Your task to perform on an android device: change alarm snooze length Image 0: 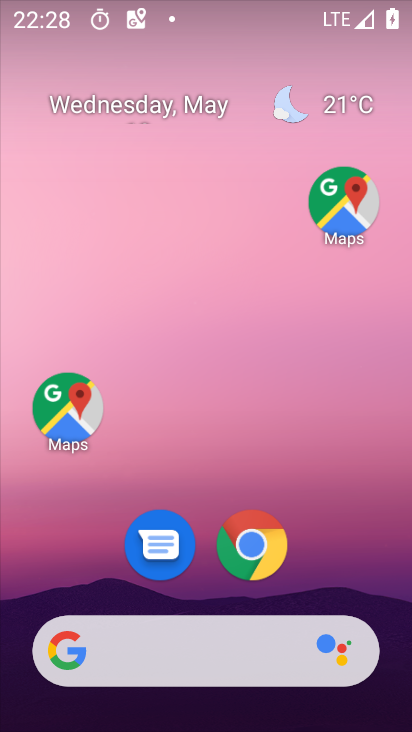
Step 0: drag from (201, 589) to (240, 111)
Your task to perform on an android device: change alarm snooze length Image 1: 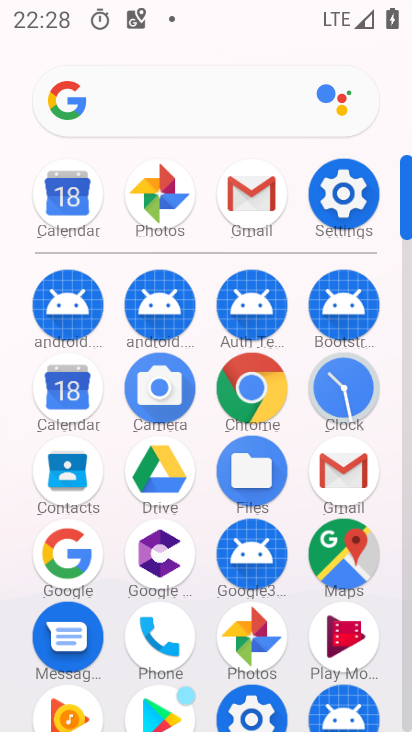
Step 1: click (327, 393)
Your task to perform on an android device: change alarm snooze length Image 2: 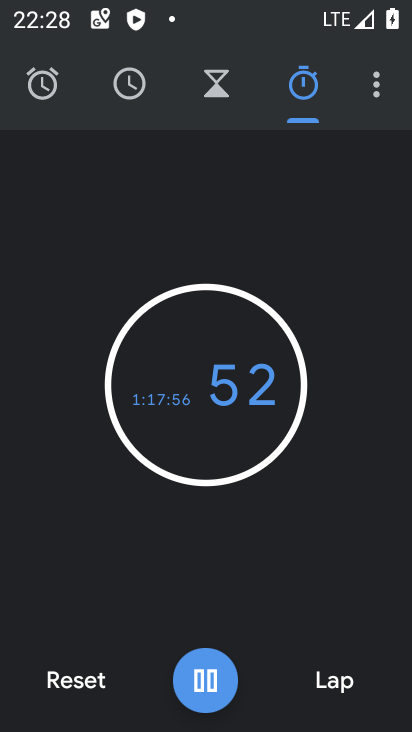
Step 2: click (377, 79)
Your task to perform on an android device: change alarm snooze length Image 3: 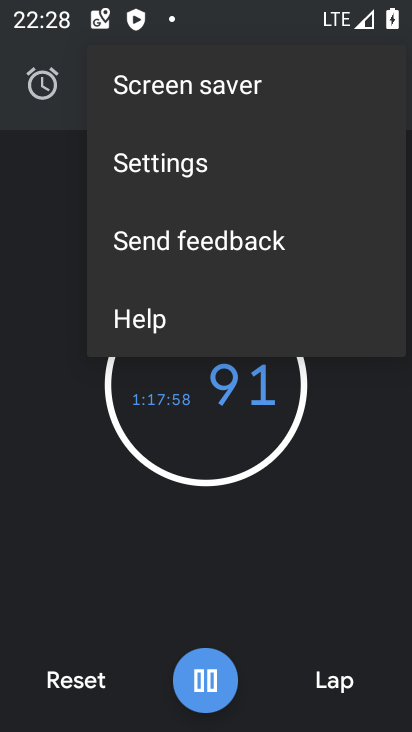
Step 3: click (200, 167)
Your task to perform on an android device: change alarm snooze length Image 4: 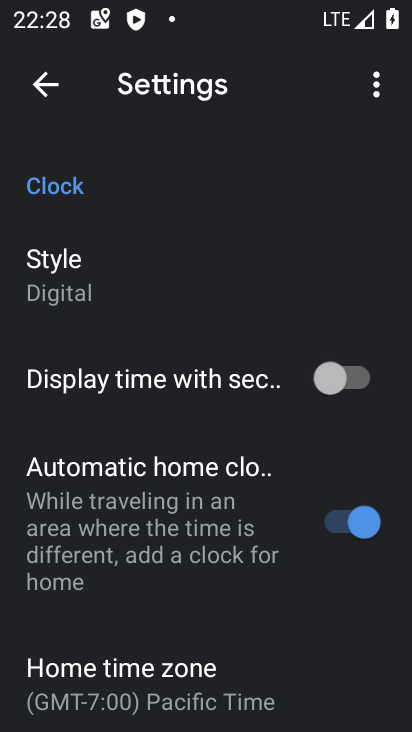
Step 4: drag from (142, 611) to (165, 361)
Your task to perform on an android device: change alarm snooze length Image 5: 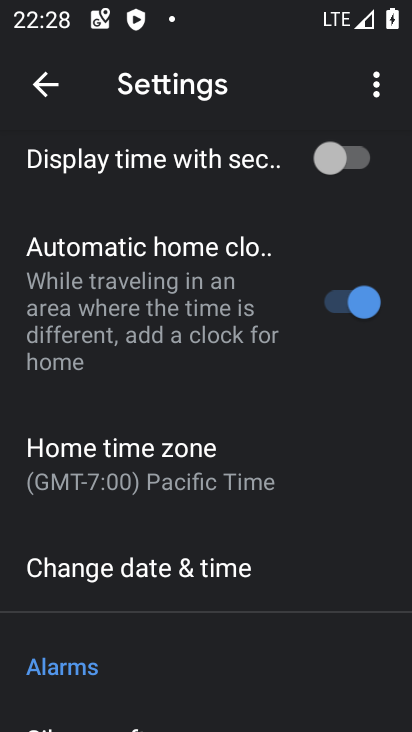
Step 5: drag from (143, 620) to (147, 469)
Your task to perform on an android device: change alarm snooze length Image 6: 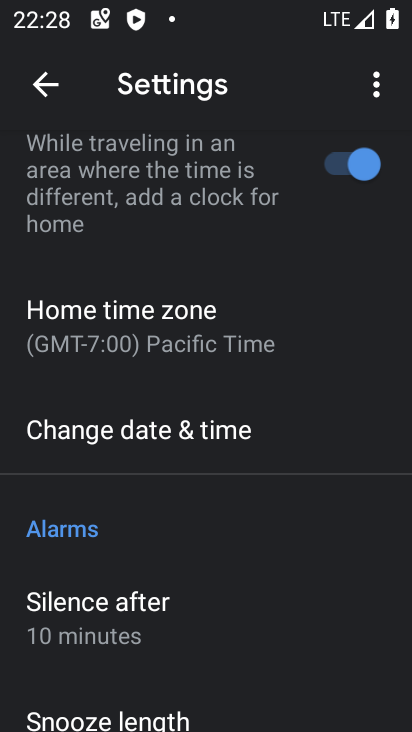
Step 6: drag from (161, 695) to (219, 478)
Your task to perform on an android device: change alarm snooze length Image 7: 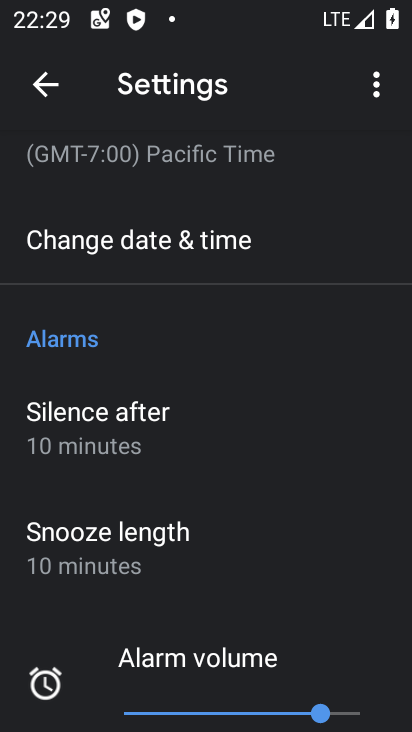
Step 7: click (117, 558)
Your task to perform on an android device: change alarm snooze length Image 8: 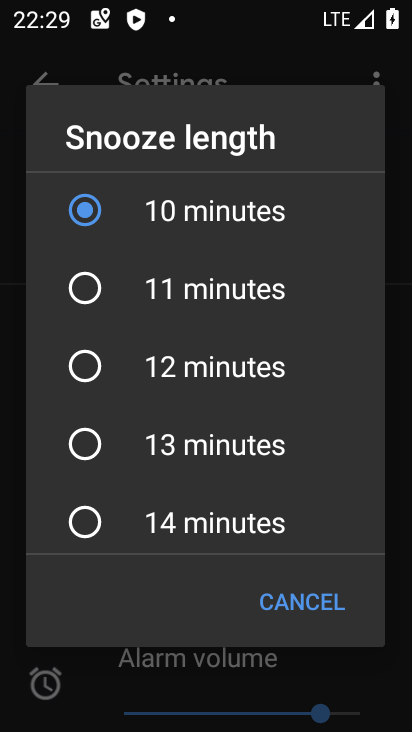
Step 8: click (156, 383)
Your task to perform on an android device: change alarm snooze length Image 9: 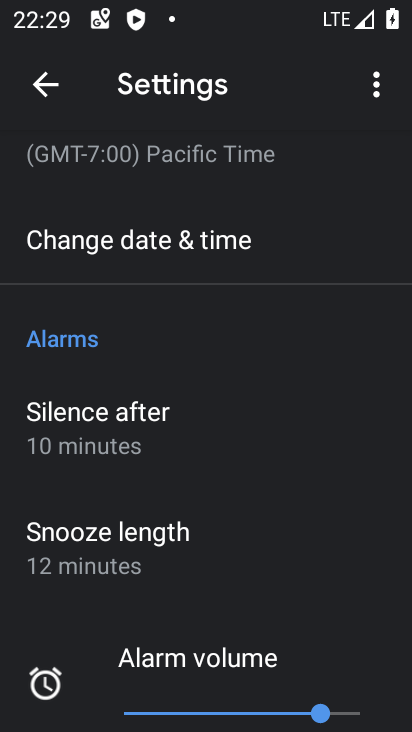
Step 9: task complete